Your task to perform on an android device: open wifi settings Image 0: 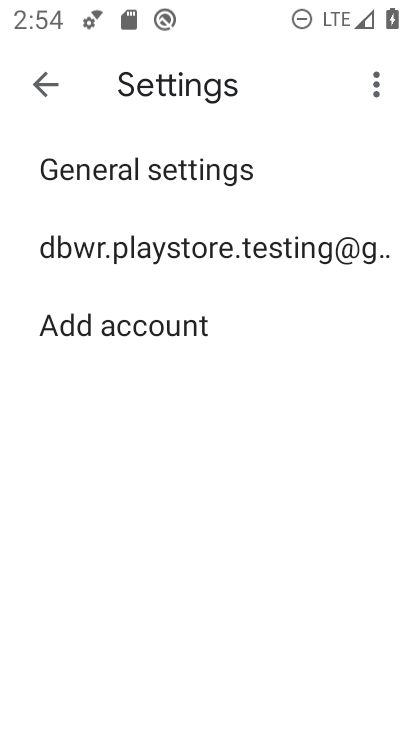
Step 0: press home button
Your task to perform on an android device: open wifi settings Image 1: 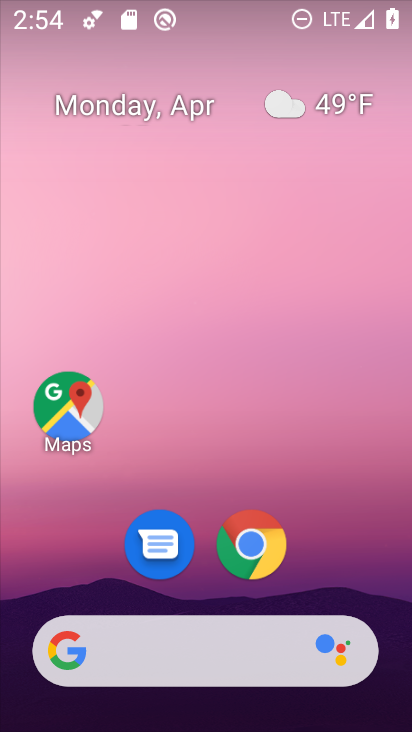
Step 1: drag from (334, 538) to (227, 144)
Your task to perform on an android device: open wifi settings Image 2: 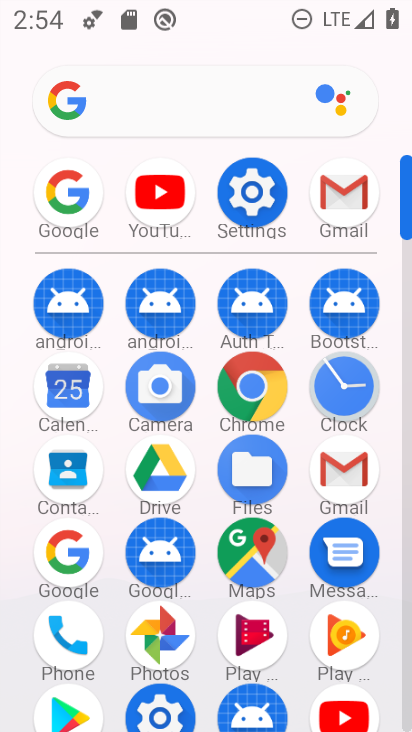
Step 2: click (252, 204)
Your task to perform on an android device: open wifi settings Image 3: 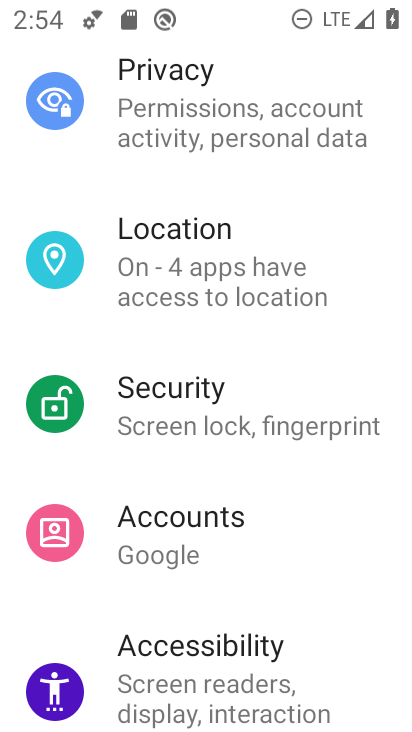
Step 3: drag from (287, 169) to (232, 604)
Your task to perform on an android device: open wifi settings Image 4: 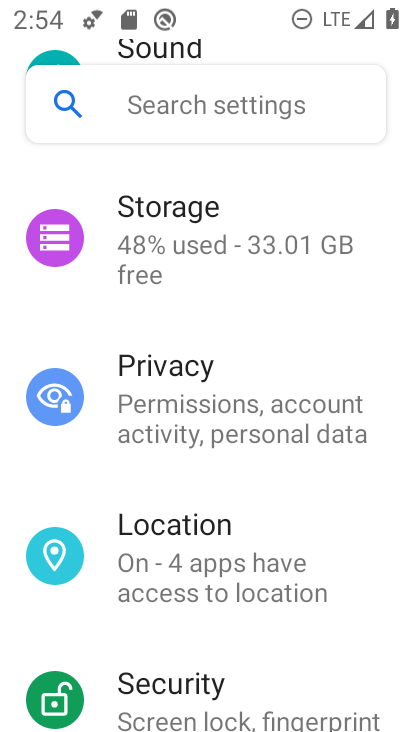
Step 4: drag from (289, 193) to (172, 720)
Your task to perform on an android device: open wifi settings Image 5: 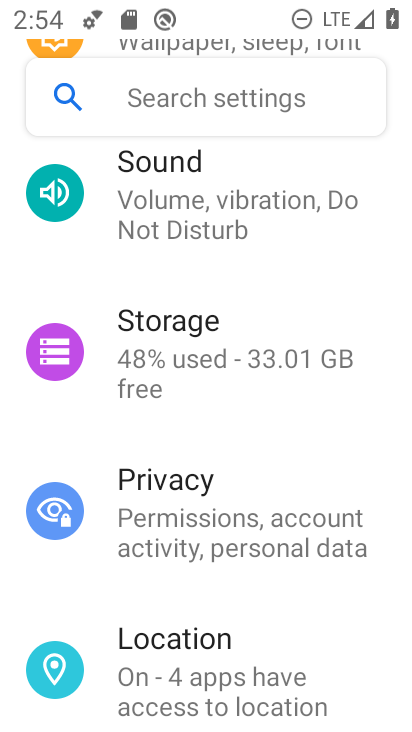
Step 5: drag from (260, 177) to (197, 543)
Your task to perform on an android device: open wifi settings Image 6: 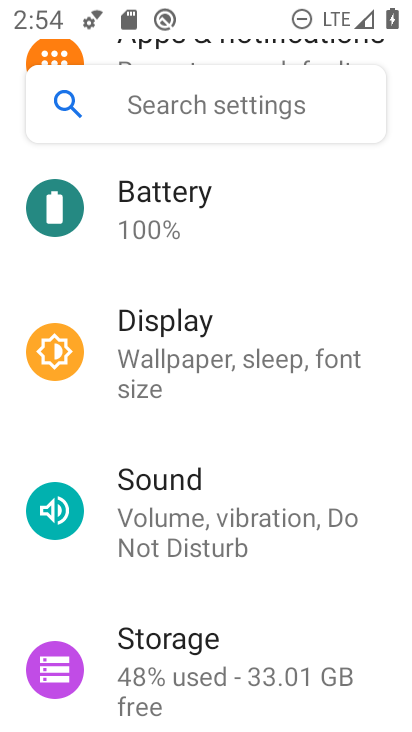
Step 6: drag from (256, 207) to (237, 669)
Your task to perform on an android device: open wifi settings Image 7: 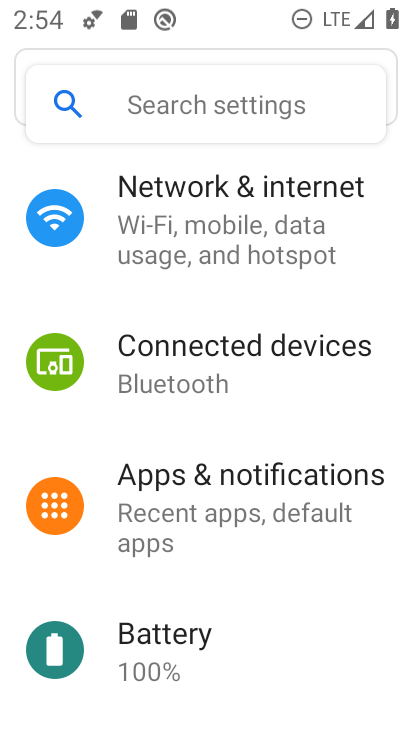
Step 7: click (243, 206)
Your task to perform on an android device: open wifi settings Image 8: 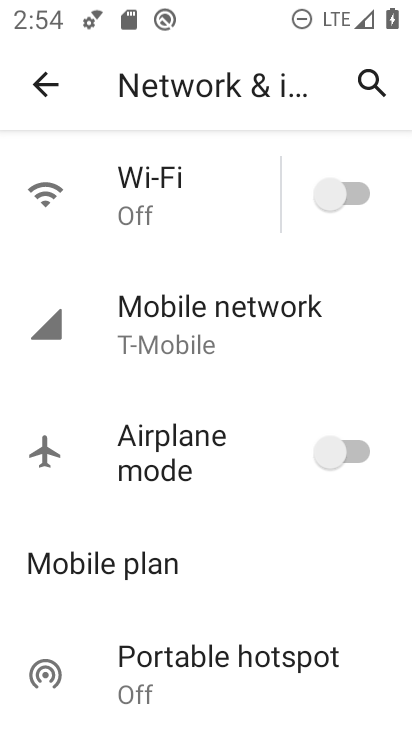
Step 8: click (204, 202)
Your task to perform on an android device: open wifi settings Image 9: 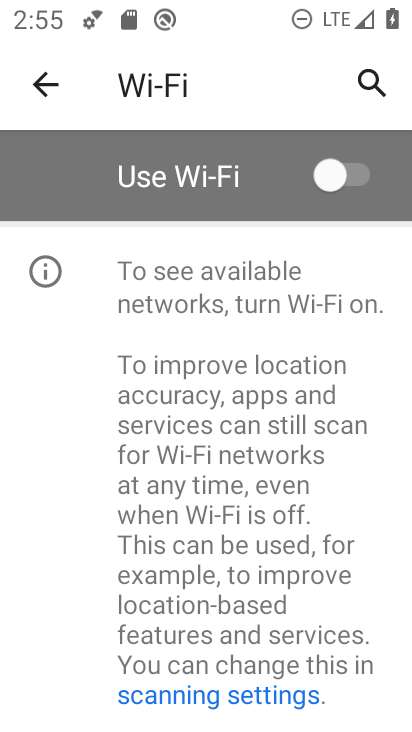
Step 9: task complete